Your task to perform on an android device: toggle sleep mode Image 0: 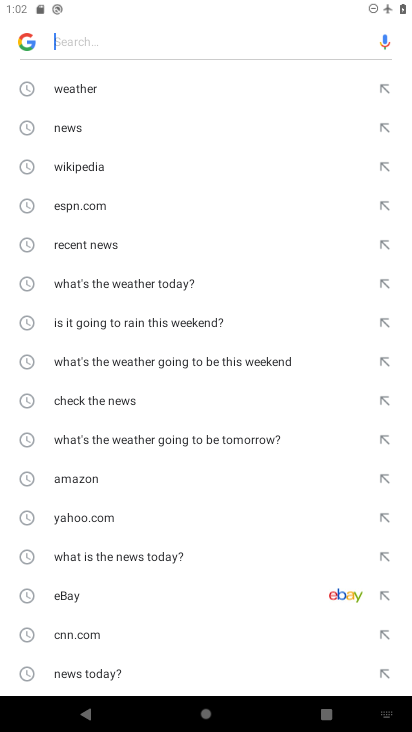
Step 0: press home button
Your task to perform on an android device: toggle sleep mode Image 1: 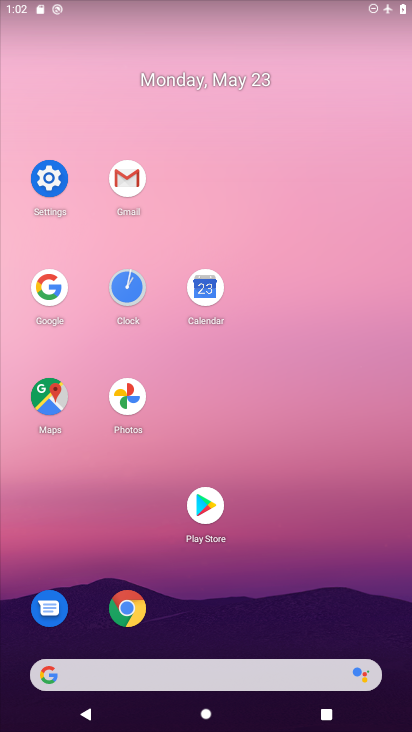
Step 1: click (55, 166)
Your task to perform on an android device: toggle sleep mode Image 2: 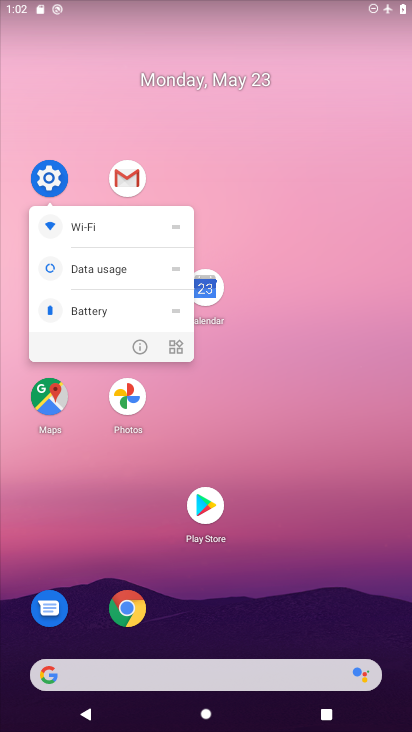
Step 2: click (57, 170)
Your task to perform on an android device: toggle sleep mode Image 3: 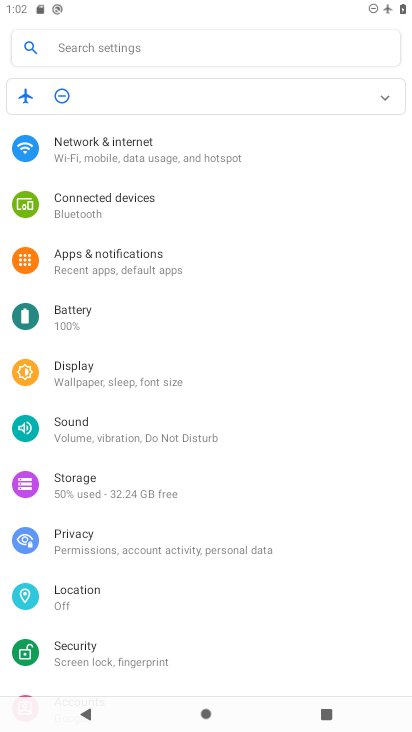
Step 3: click (104, 370)
Your task to perform on an android device: toggle sleep mode Image 4: 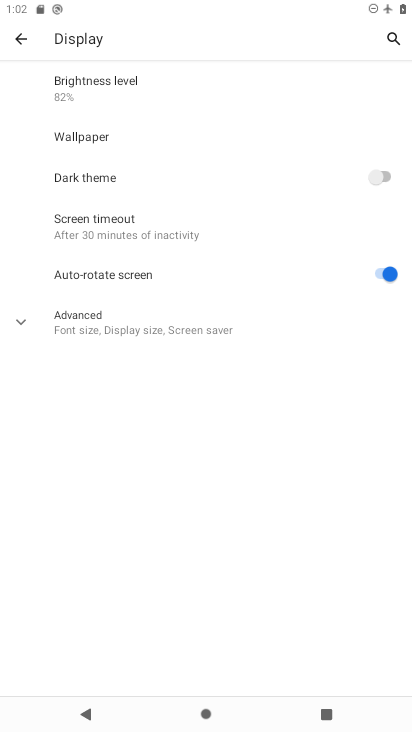
Step 4: click (89, 219)
Your task to perform on an android device: toggle sleep mode Image 5: 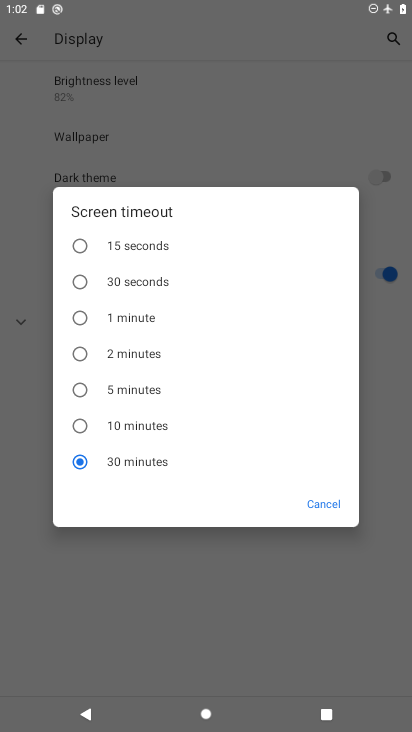
Step 5: click (106, 267)
Your task to perform on an android device: toggle sleep mode Image 6: 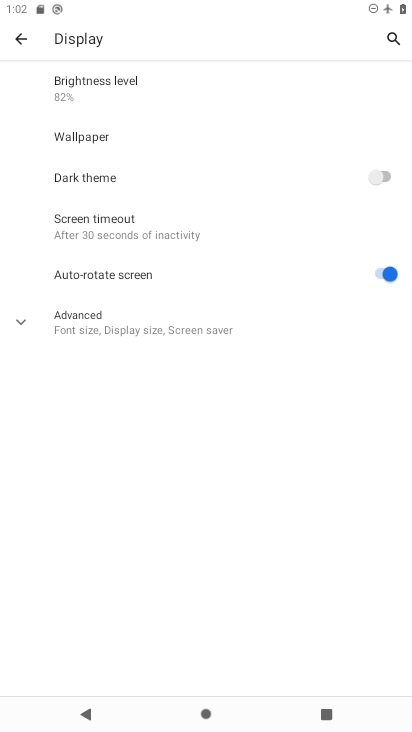
Step 6: task complete